Your task to perform on an android device: remove spam from my inbox in the gmail app Image 0: 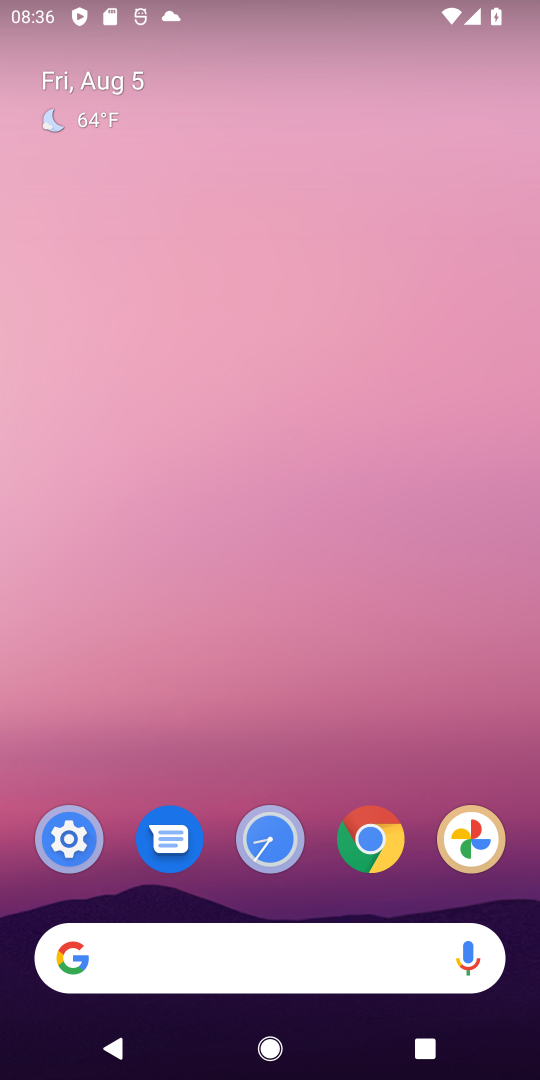
Step 0: drag from (338, 787) to (392, 62)
Your task to perform on an android device: remove spam from my inbox in the gmail app Image 1: 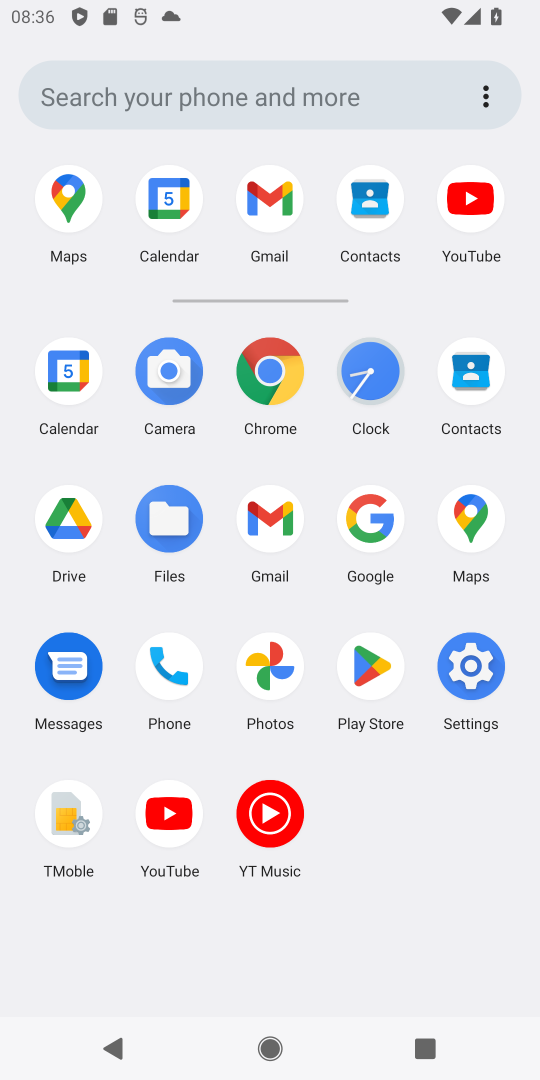
Step 1: click (265, 522)
Your task to perform on an android device: remove spam from my inbox in the gmail app Image 2: 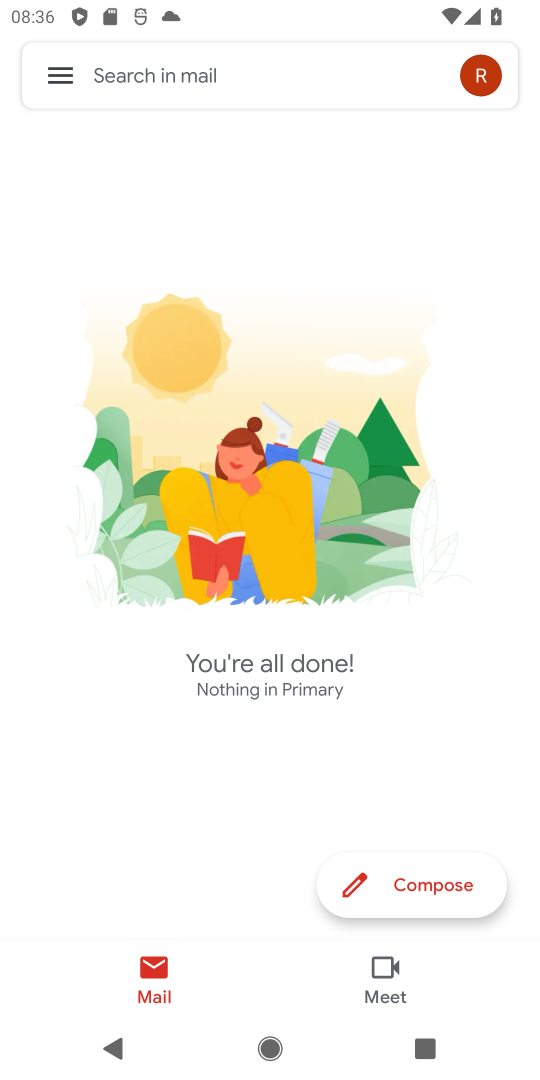
Step 2: task complete